Your task to perform on an android device: empty trash in the gmail app Image 0: 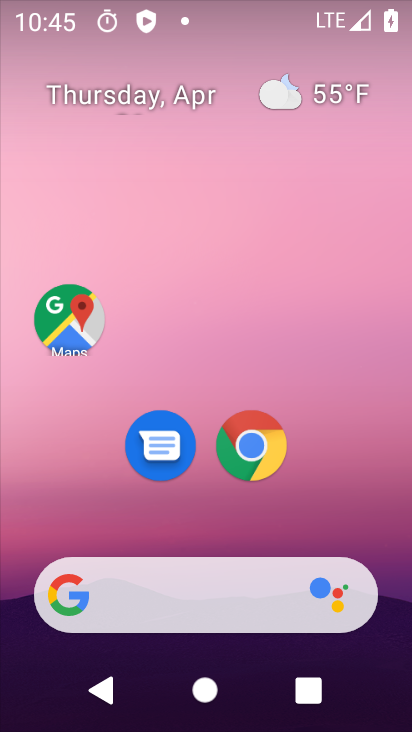
Step 0: drag from (360, 501) to (372, 9)
Your task to perform on an android device: empty trash in the gmail app Image 1: 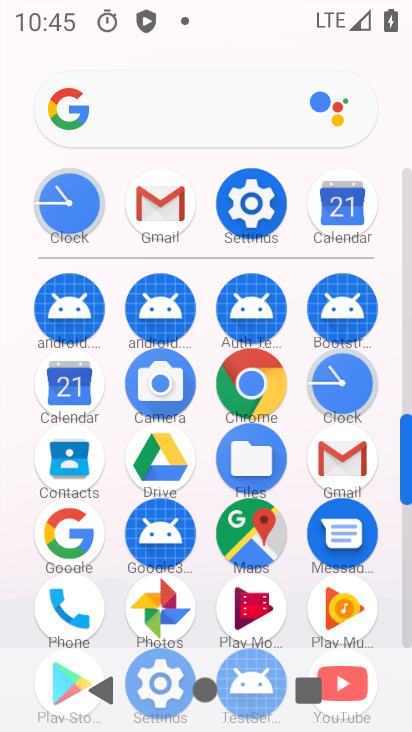
Step 1: click (156, 198)
Your task to perform on an android device: empty trash in the gmail app Image 2: 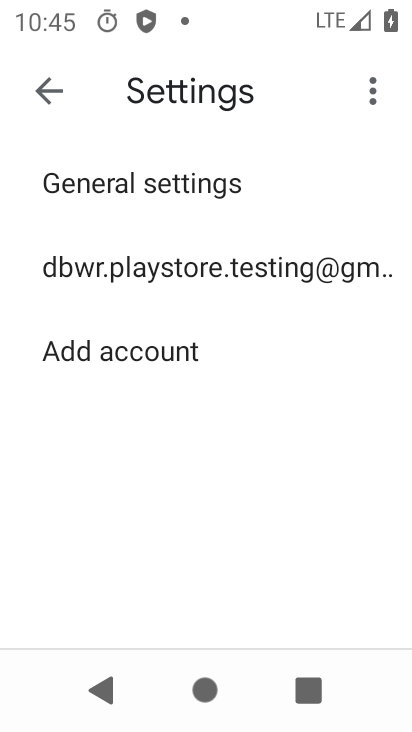
Step 2: click (33, 85)
Your task to perform on an android device: empty trash in the gmail app Image 3: 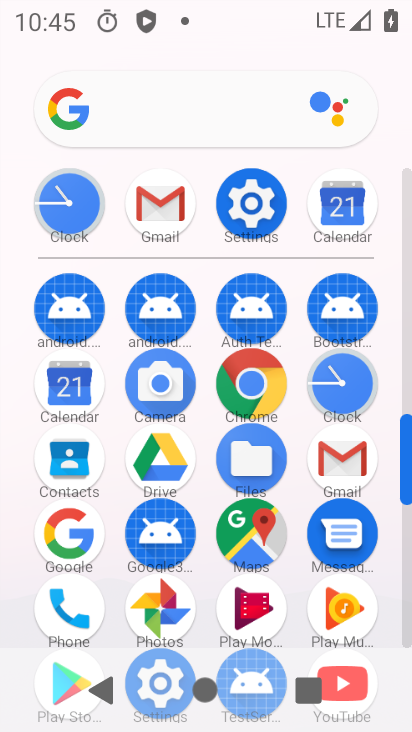
Step 3: click (148, 238)
Your task to perform on an android device: empty trash in the gmail app Image 4: 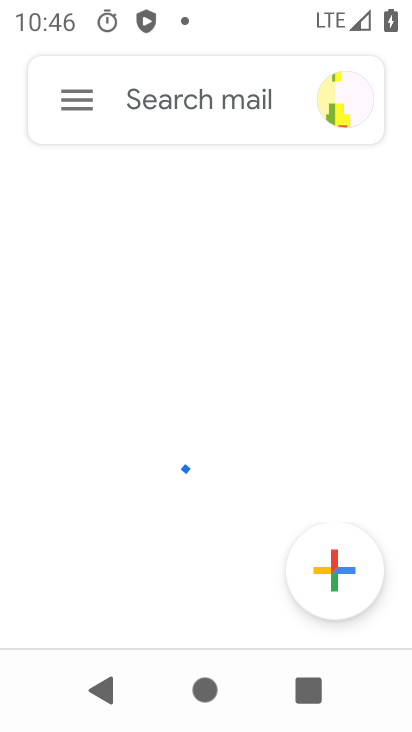
Step 4: click (84, 94)
Your task to perform on an android device: empty trash in the gmail app Image 5: 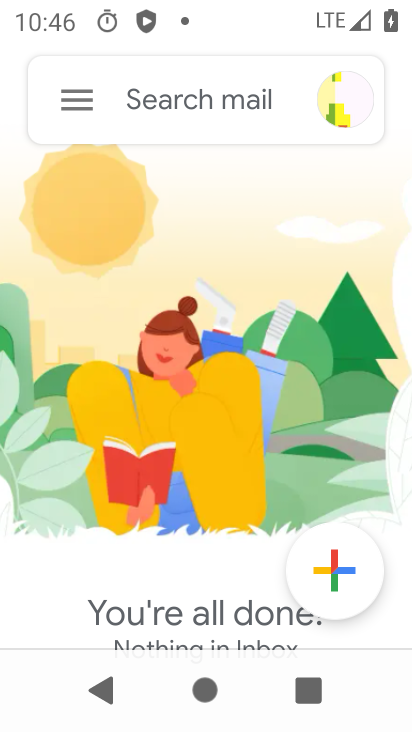
Step 5: click (77, 106)
Your task to perform on an android device: empty trash in the gmail app Image 6: 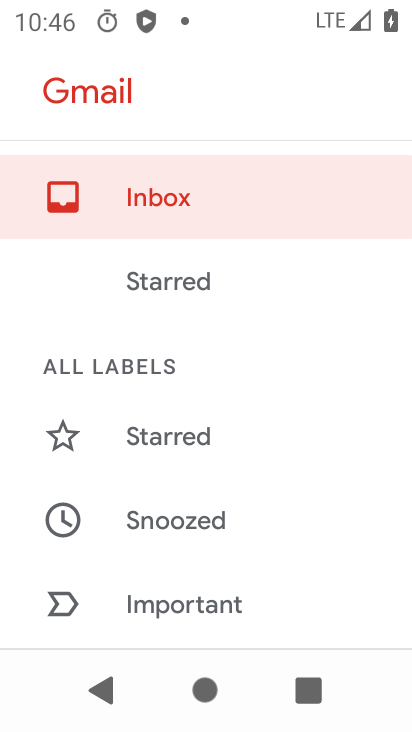
Step 6: drag from (204, 428) to (211, 82)
Your task to perform on an android device: empty trash in the gmail app Image 7: 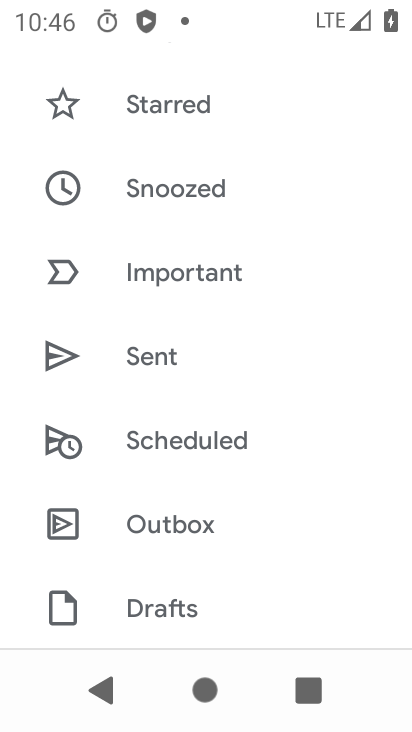
Step 7: drag from (223, 488) to (218, 158)
Your task to perform on an android device: empty trash in the gmail app Image 8: 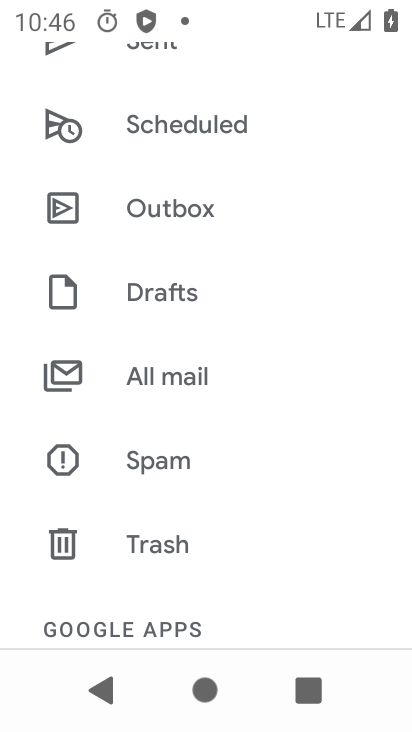
Step 8: click (147, 540)
Your task to perform on an android device: empty trash in the gmail app Image 9: 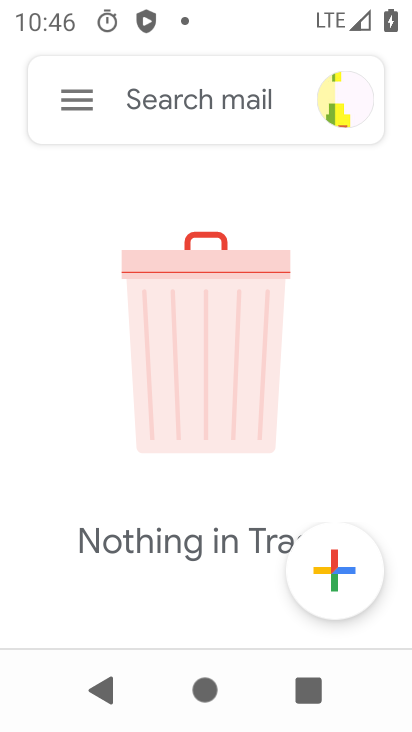
Step 9: task complete